Your task to perform on an android device: Search for a new grill on Home Depot Image 0: 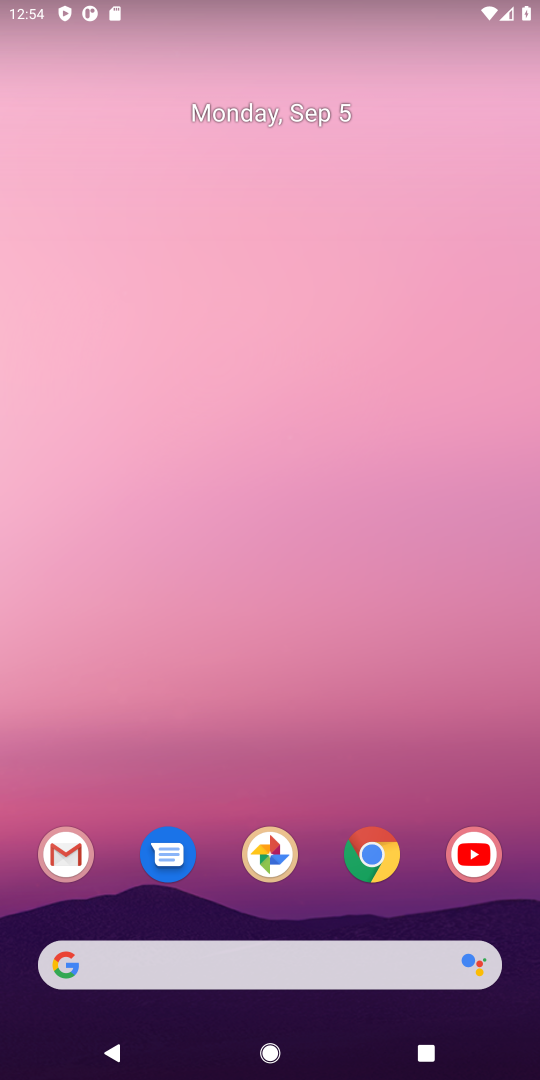
Step 0: click (369, 846)
Your task to perform on an android device: Search for a new grill on Home Depot Image 1: 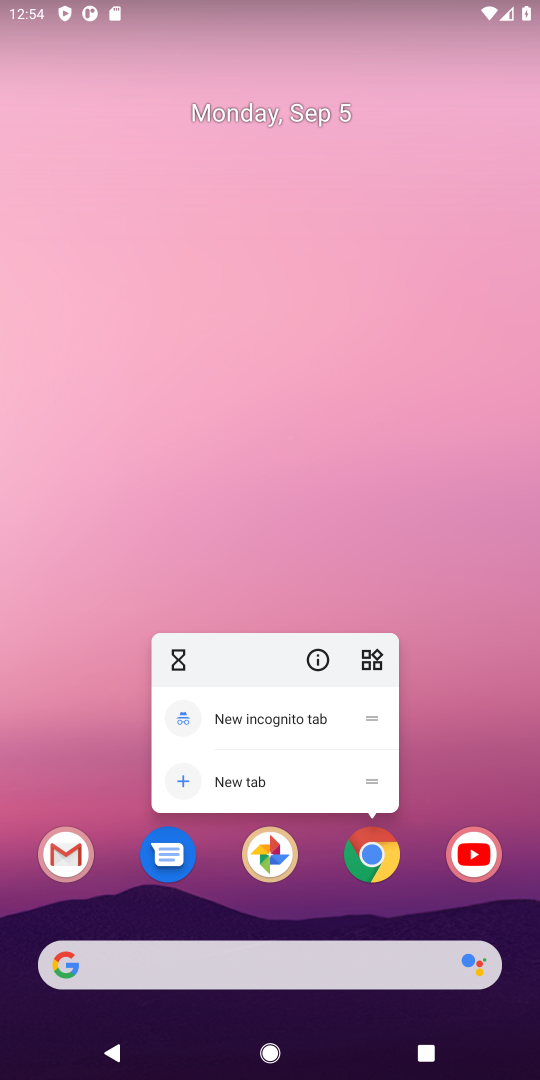
Step 1: click (369, 850)
Your task to perform on an android device: Search for a new grill on Home Depot Image 2: 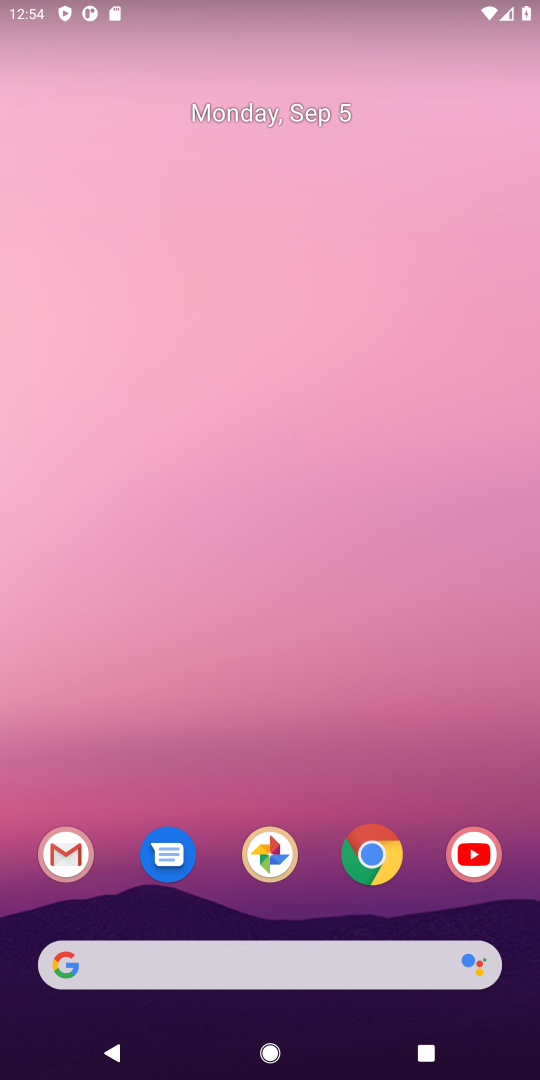
Step 2: click (369, 850)
Your task to perform on an android device: Search for a new grill on Home Depot Image 3: 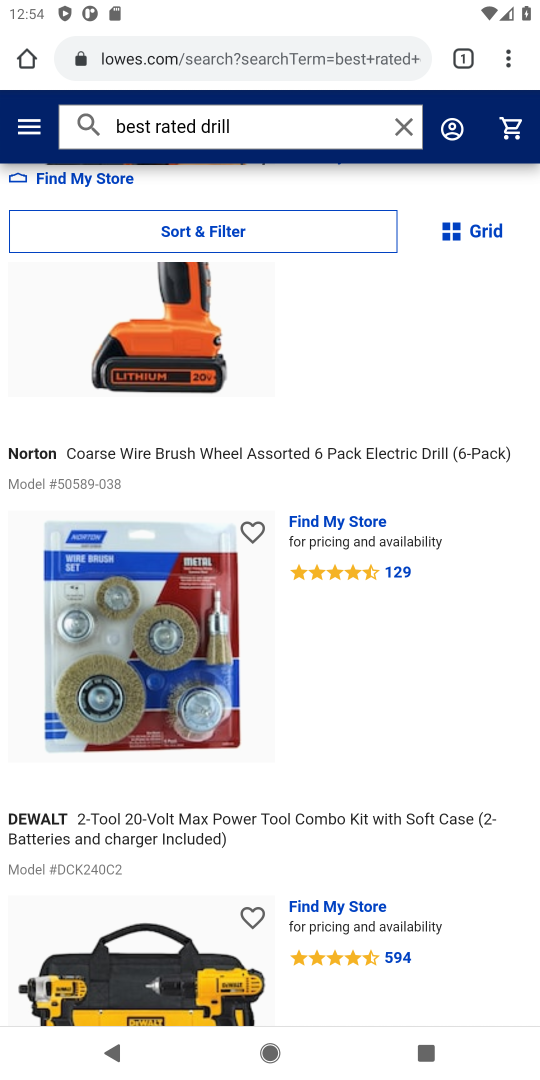
Step 3: click (341, 52)
Your task to perform on an android device: Search for a new grill on Home Depot Image 4: 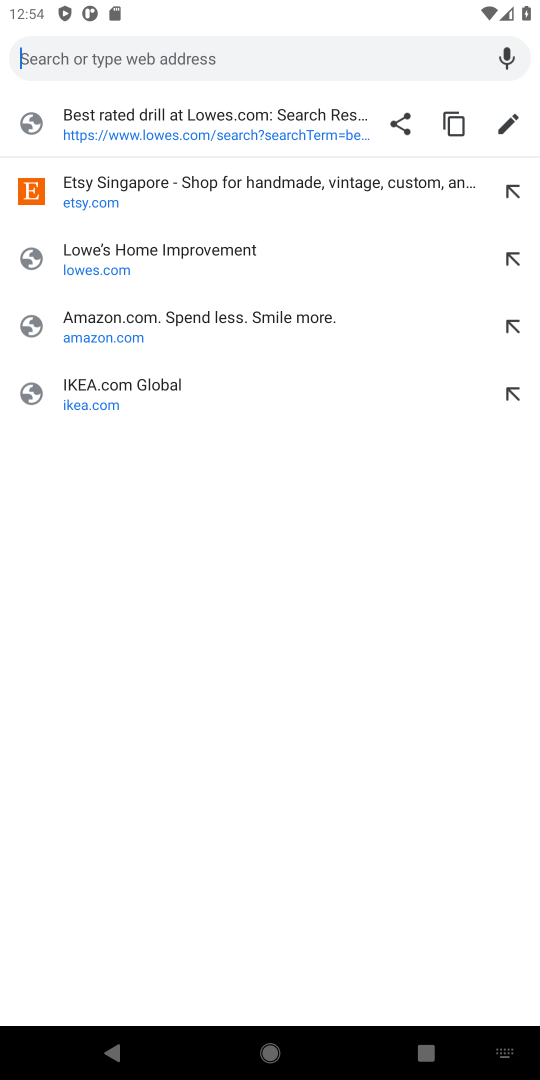
Step 4: press enter
Your task to perform on an android device: Search for a new grill on Home Depot Image 5: 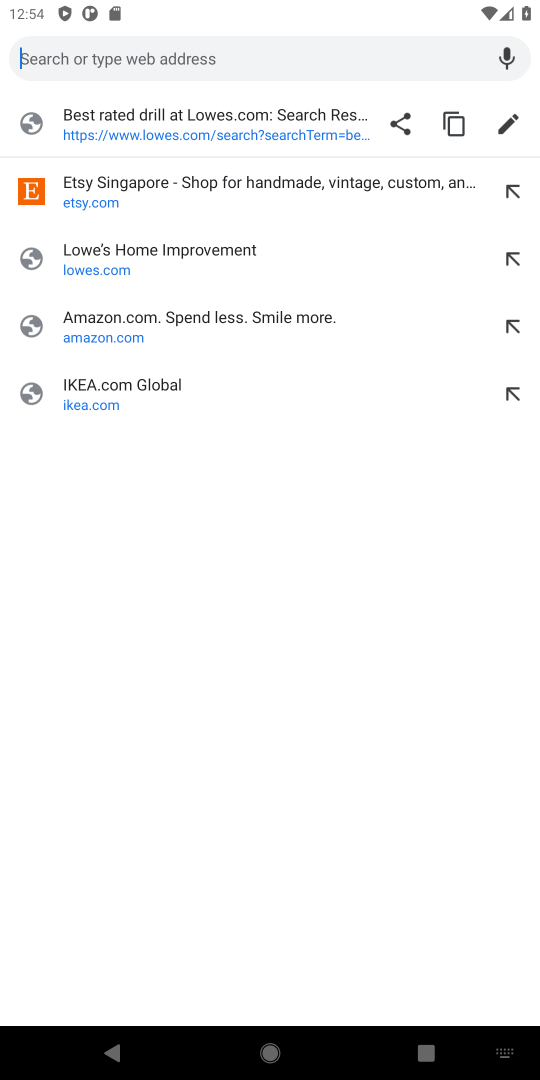
Step 5: type "Home Depot"
Your task to perform on an android device: Search for a new grill on Home Depot Image 6: 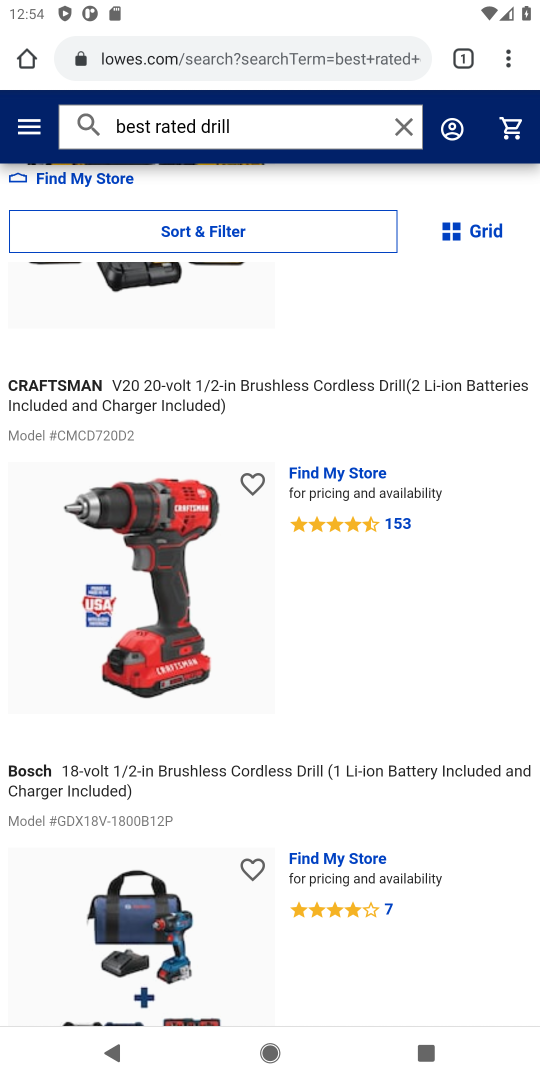
Step 6: click (302, 58)
Your task to perform on an android device: Search for a new grill on Home Depot Image 7: 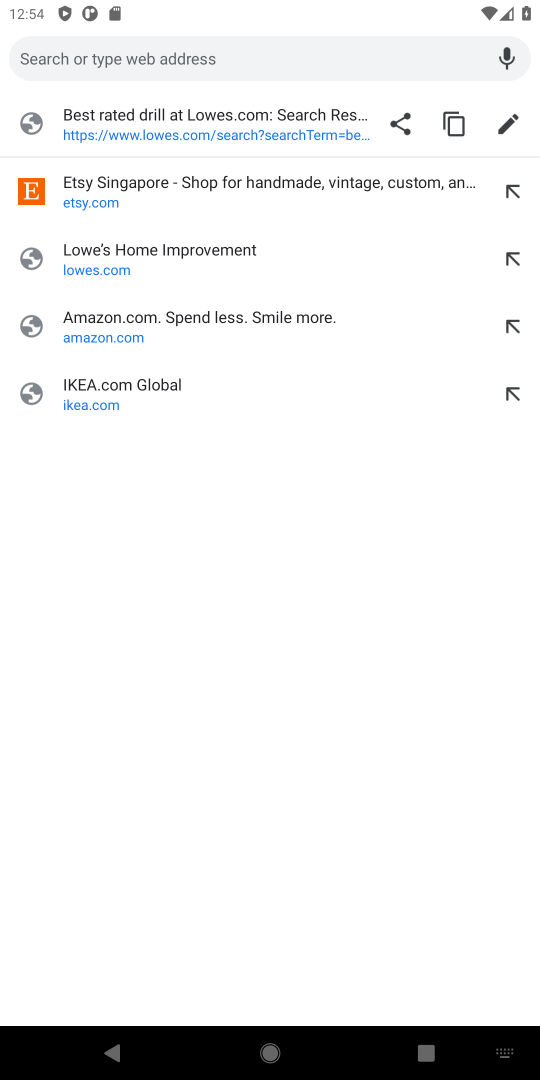
Step 7: type "Home Depot"
Your task to perform on an android device: Search for a new grill on Home Depot Image 8: 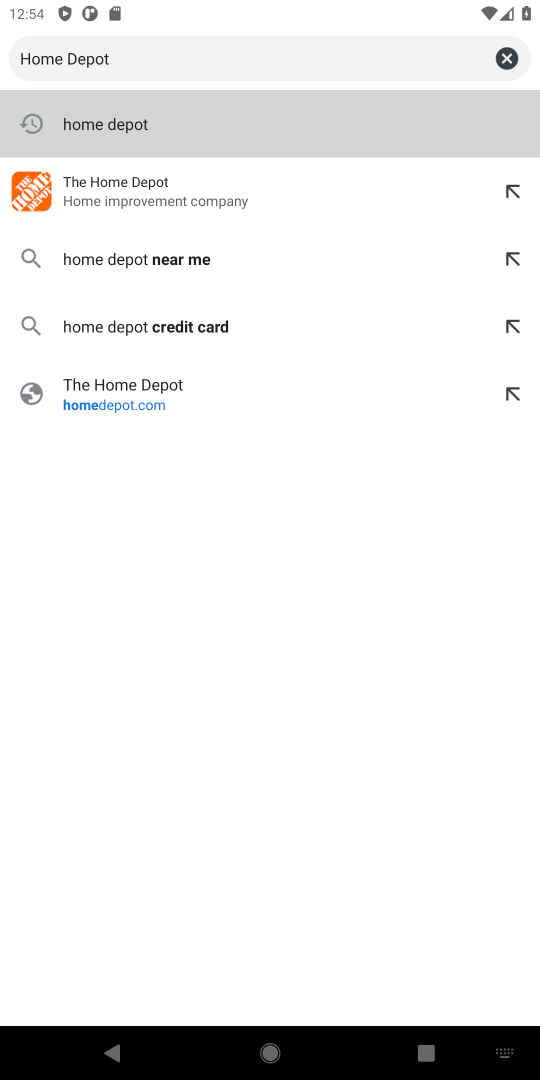
Step 8: press enter
Your task to perform on an android device: Search for a new grill on Home Depot Image 9: 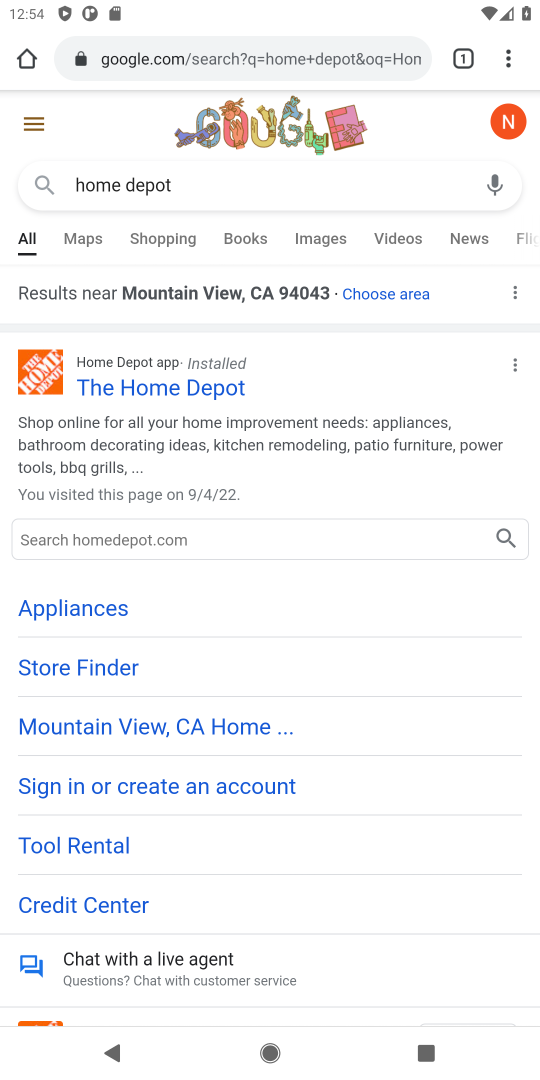
Step 9: task complete